Your task to perform on an android device: find snoozed emails in the gmail app Image 0: 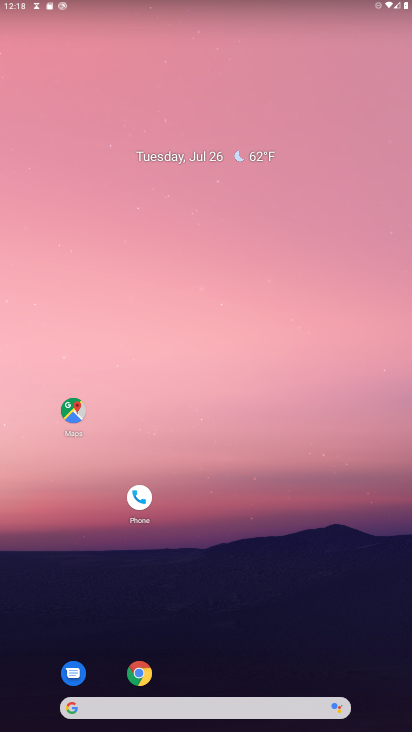
Step 0: press home button
Your task to perform on an android device: find snoozed emails in the gmail app Image 1: 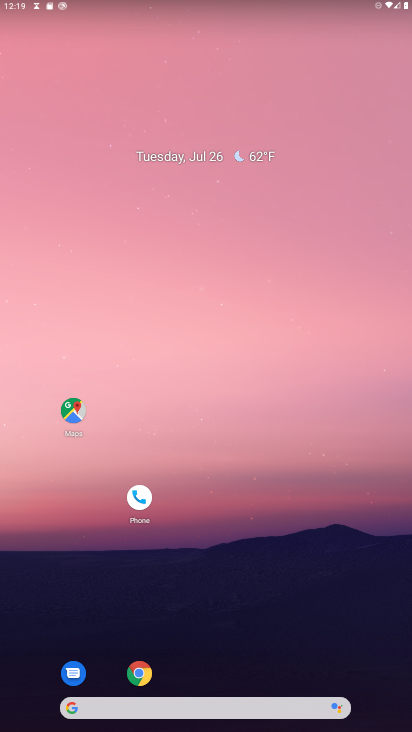
Step 1: drag from (219, 634) to (235, 126)
Your task to perform on an android device: find snoozed emails in the gmail app Image 2: 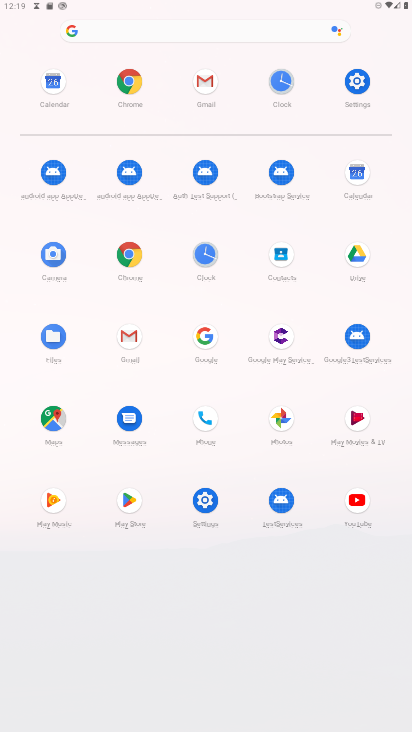
Step 2: click (203, 85)
Your task to perform on an android device: find snoozed emails in the gmail app Image 3: 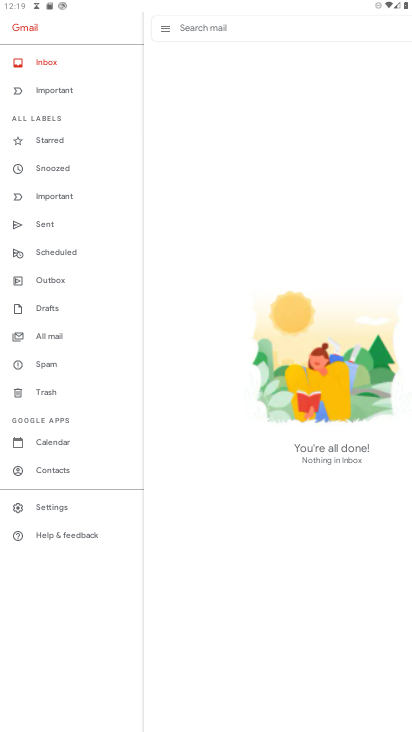
Step 3: click (54, 168)
Your task to perform on an android device: find snoozed emails in the gmail app Image 4: 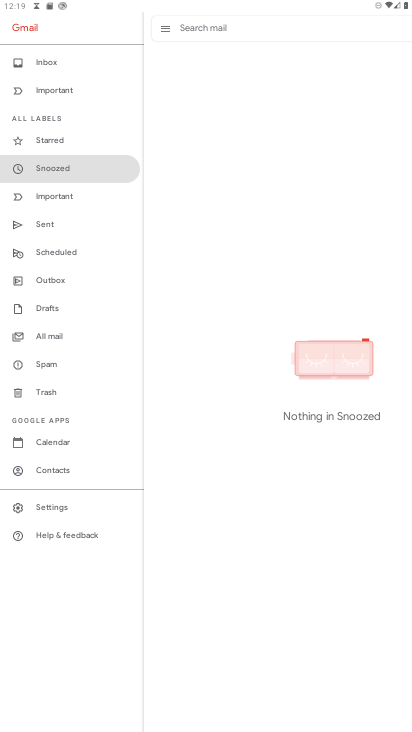
Step 4: task complete